Your task to perform on an android device: Go to battery settings Image 0: 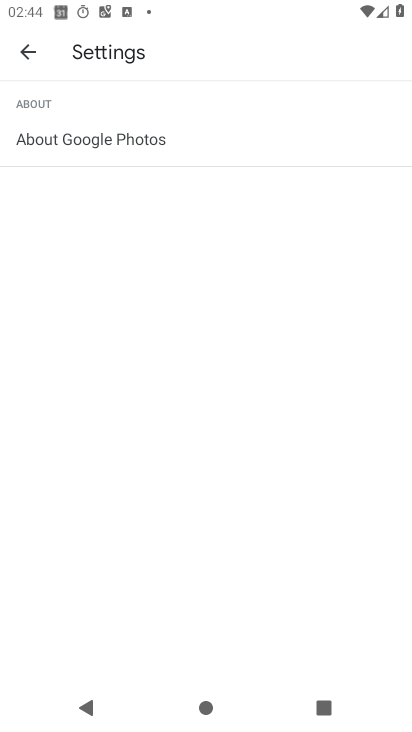
Step 0: press home button
Your task to perform on an android device: Go to battery settings Image 1: 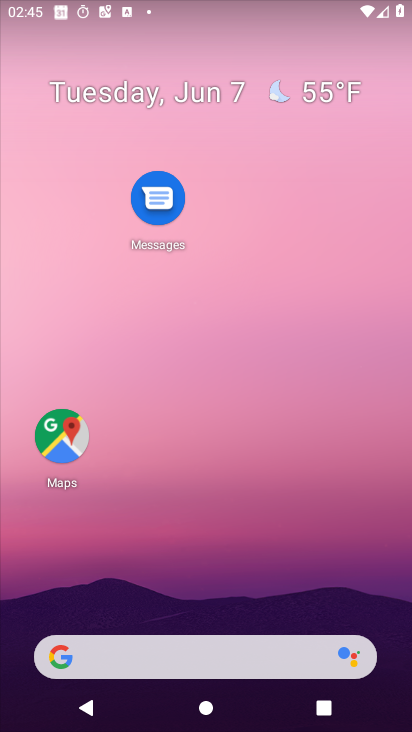
Step 1: drag from (206, 595) to (156, 45)
Your task to perform on an android device: Go to battery settings Image 2: 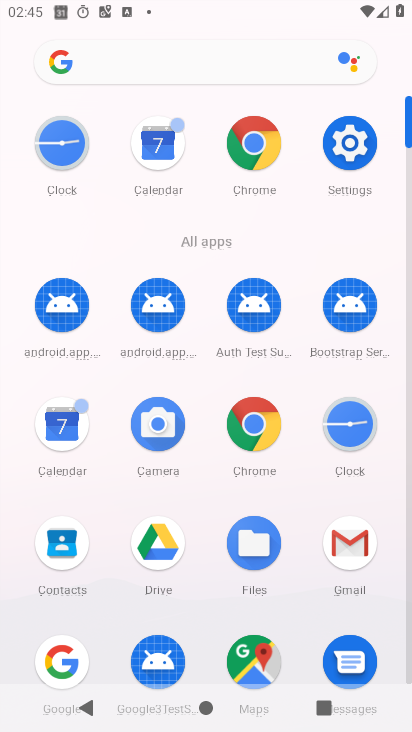
Step 2: click (361, 145)
Your task to perform on an android device: Go to battery settings Image 3: 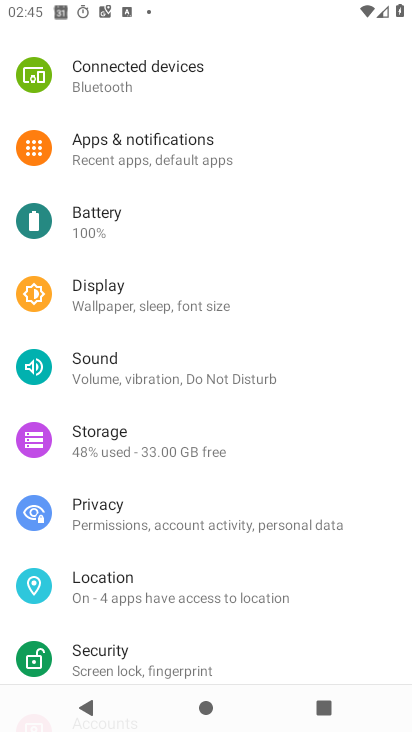
Step 3: click (108, 228)
Your task to perform on an android device: Go to battery settings Image 4: 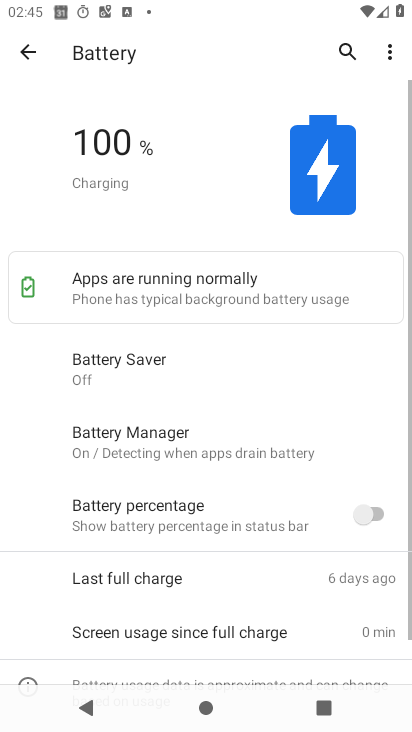
Step 4: task complete